Your task to perform on an android device: What's the weather going to be this weekend? Image 0: 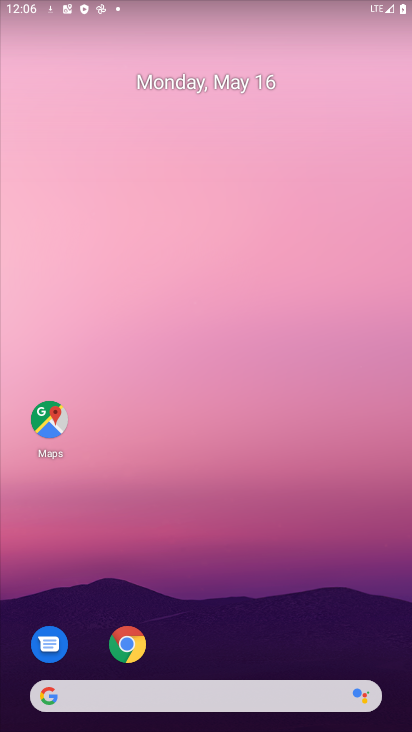
Step 0: drag from (155, 716) to (299, 412)
Your task to perform on an android device: What's the weather going to be this weekend? Image 1: 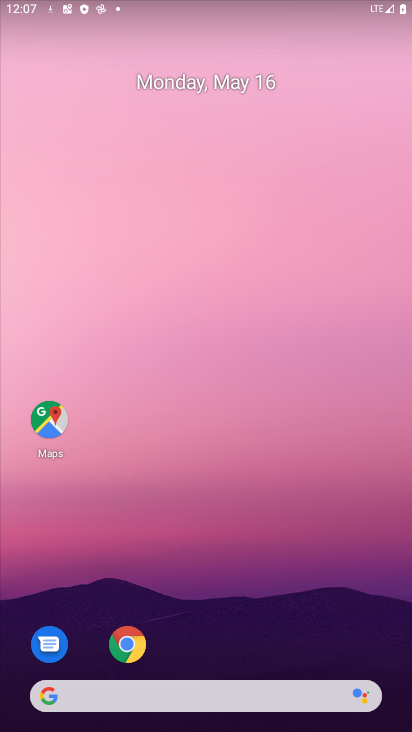
Step 1: drag from (171, 721) to (393, 207)
Your task to perform on an android device: What's the weather going to be this weekend? Image 2: 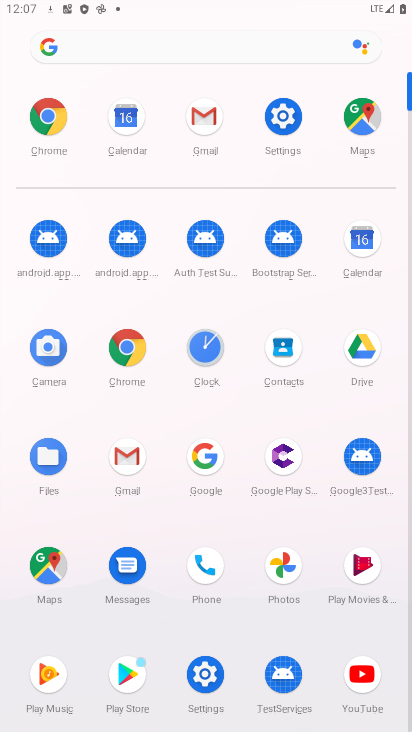
Step 2: click (99, 54)
Your task to perform on an android device: What's the weather going to be this weekend? Image 3: 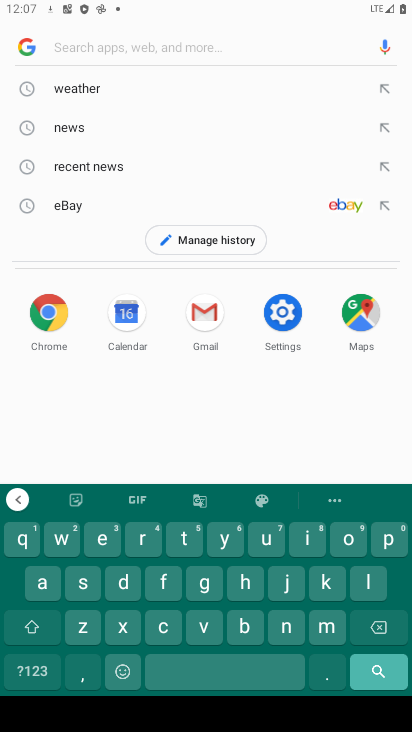
Step 3: click (97, 90)
Your task to perform on an android device: What's the weather going to be this weekend? Image 4: 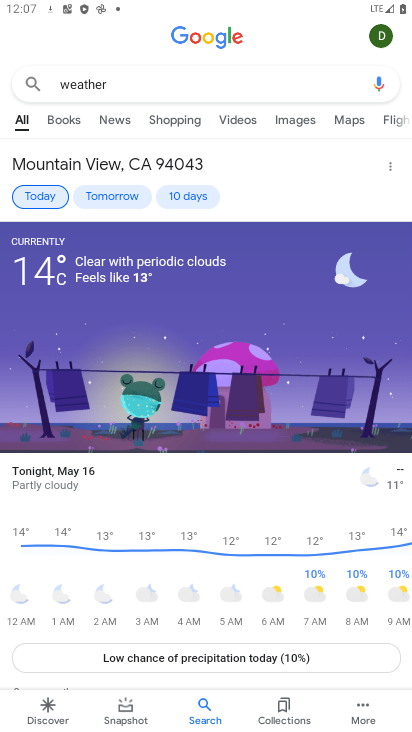
Step 4: click (183, 190)
Your task to perform on an android device: What's the weather going to be this weekend? Image 5: 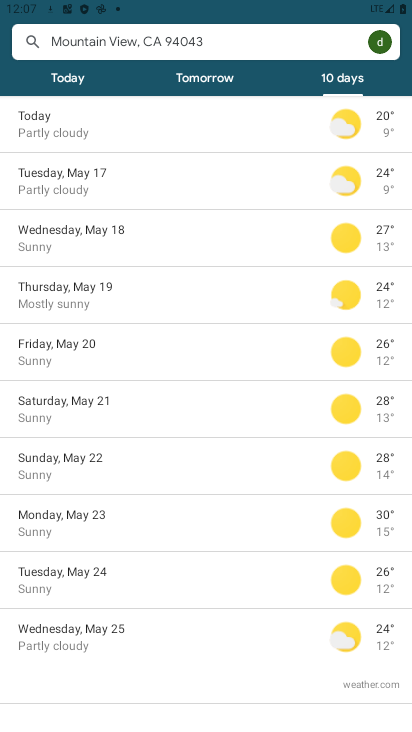
Step 5: task complete